Your task to perform on an android device: Open display settings Image 0: 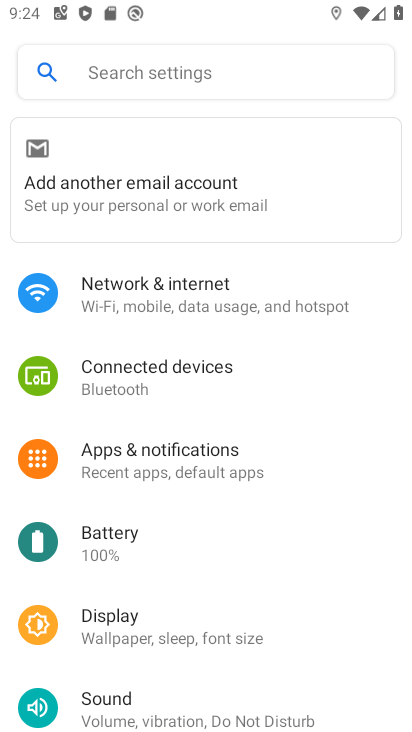
Step 0: press home button
Your task to perform on an android device: Open display settings Image 1: 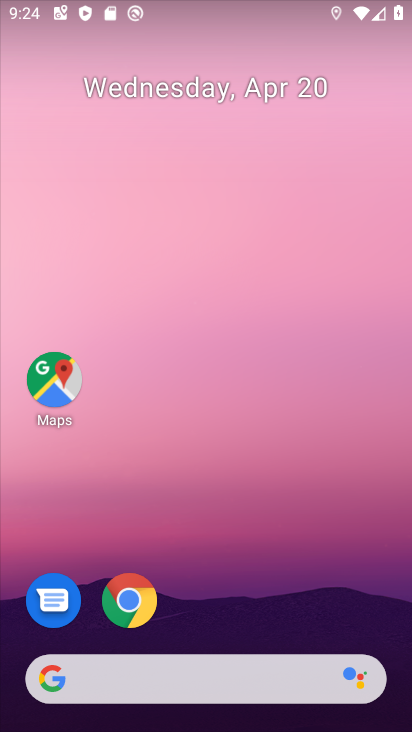
Step 1: drag from (224, 638) to (342, 4)
Your task to perform on an android device: Open display settings Image 2: 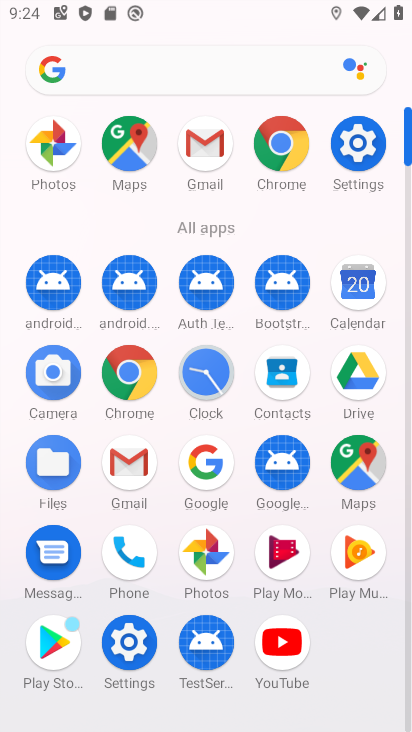
Step 2: click (120, 656)
Your task to perform on an android device: Open display settings Image 3: 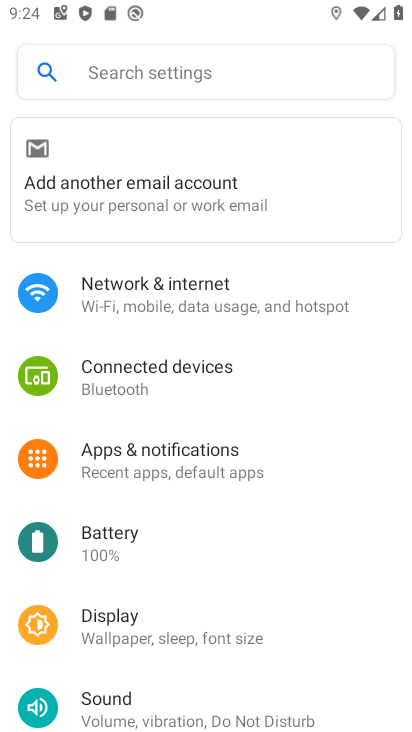
Step 3: drag from (171, 595) to (163, 128)
Your task to perform on an android device: Open display settings Image 4: 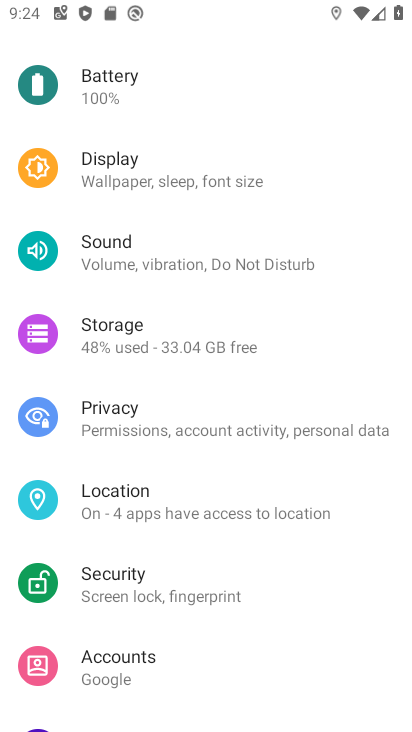
Step 4: click (122, 165)
Your task to perform on an android device: Open display settings Image 5: 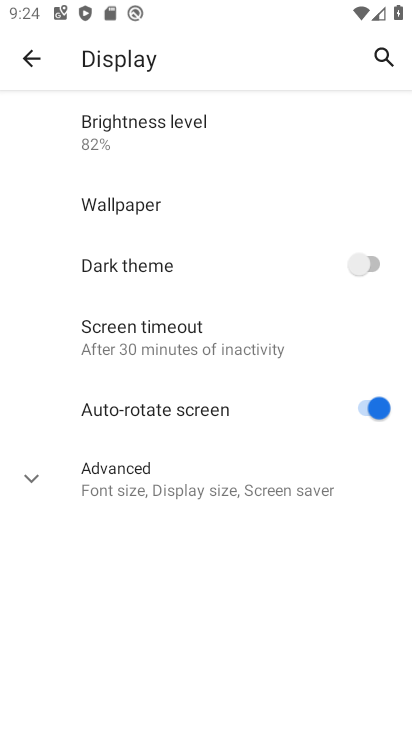
Step 5: click (89, 486)
Your task to perform on an android device: Open display settings Image 6: 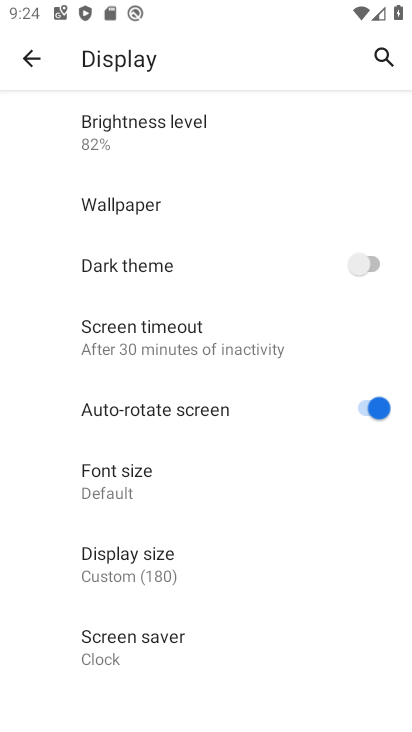
Step 6: task complete